Your task to perform on an android device: Search for usb-b on ebay.com, select the first entry, add it to the cart, then select checkout. Image 0: 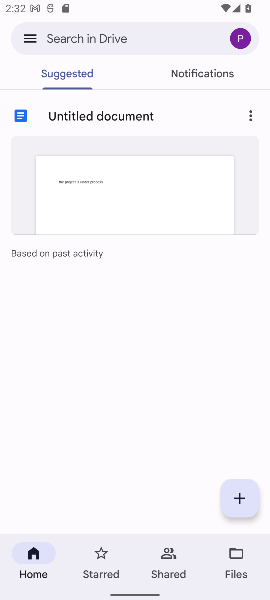
Step 0: press home button
Your task to perform on an android device: Search for usb-b on ebay.com, select the first entry, add it to the cart, then select checkout. Image 1: 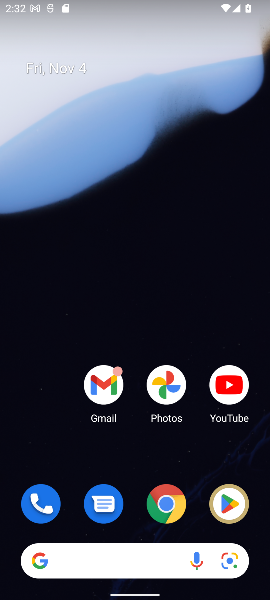
Step 1: click (173, 504)
Your task to perform on an android device: Search for usb-b on ebay.com, select the first entry, add it to the cart, then select checkout. Image 2: 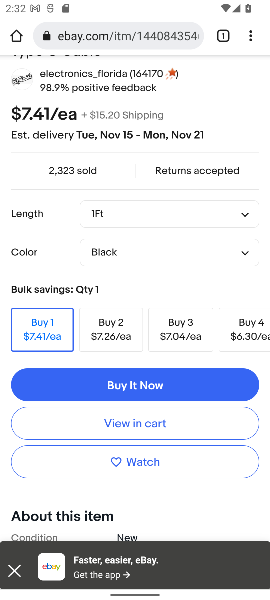
Step 2: drag from (170, 272) to (104, 472)
Your task to perform on an android device: Search for usb-b on ebay.com, select the first entry, add it to the cart, then select checkout. Image 3: 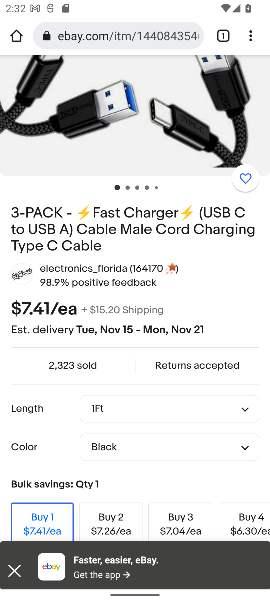
Step 3: drag from (126, 206) to (95, 420)
Your task to perform on an android device: Search for usb-b on ebay.com, select the first entry, add it to the cart, then select checkout. Image 4: 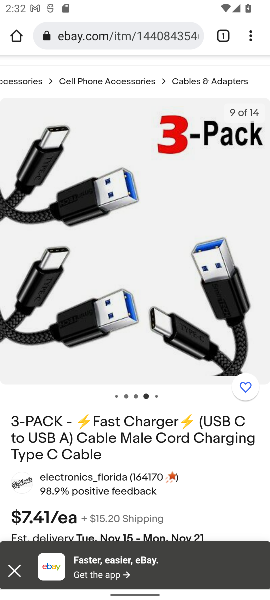
Step 4: drag from (111, 181) to (110, 411)
Your task to perform on an android device: Search for usb-b on ebay.com, select the first entry, add it to the cart, then select checkout. Image 5: 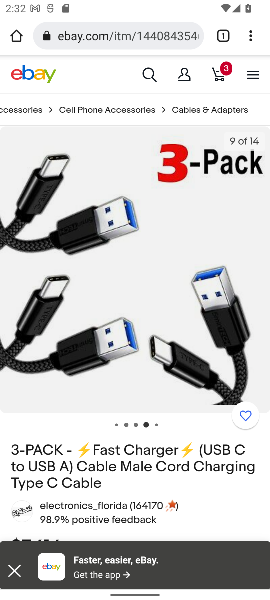
Step 5: click (150, 77)
Your task to perform on an android device: Search for usb-b on ebay.com, select the first entry, add it to the cart, then select checkout. Image 6: 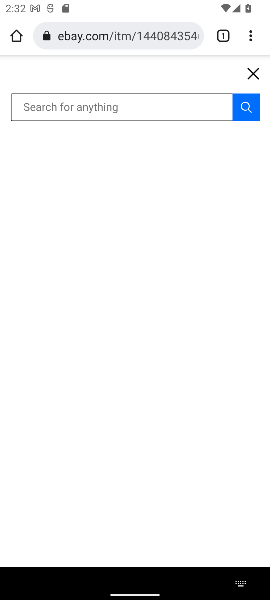
Step 6: type "usb-b"
Your task to perform on an android device: Search for usb-b on ebay.com, select the first entry, add it to the cart, then select checkout. Image 7: 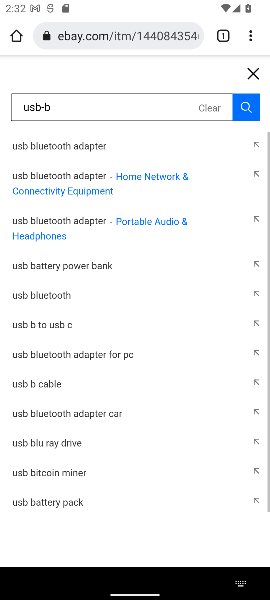
Step 7: click (253, 111)
Your task to perform on an android device: Search for usb-b on ebay.com, select the first entry, add it to the cart, then select checkout. Image 8: 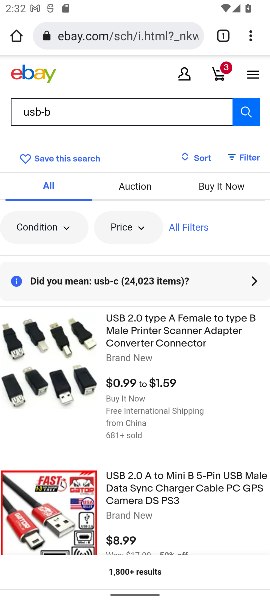
Step 8: click (0, 364)
Your task to perform on an android device: Search for usb-b on ebay.com, select the first entry, add it to the cart, then select checkout. Image 9: 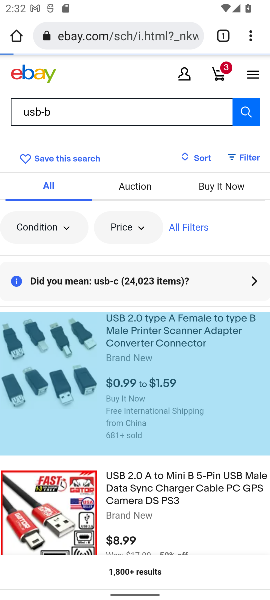
Step 9: click (43, 356)
Your task to perform on an android device: Search for usb-b on ebay.com, select the first entry, add it to the cart, then select checkout. Image 10: 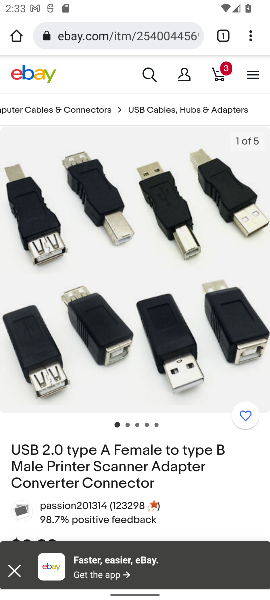
Step 10: drag from (159, 382) to (169, 171)
Your task to perform on an android device: Search for usb-b on ebay.com, select the first entry, add it to the cart, then select checkout. Image 11: 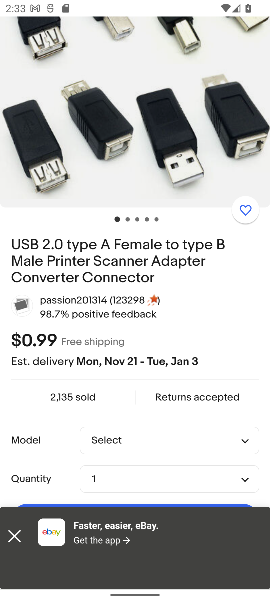
Step 11: drag from (141, 276) to (136, 127)
Your task to perform on an android device: Search for usb-b on ebay.com, select the first entry, add it to the cart, then select checkout. Image 12: 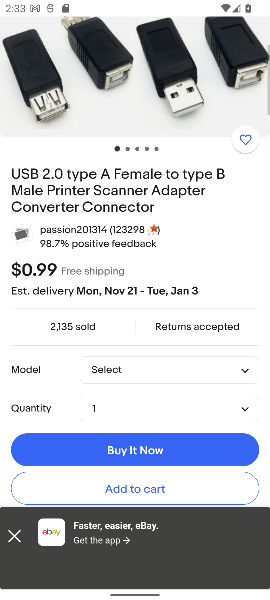
Step 12: drag from (158, 291) to (140, 142)
Your task to perform on an android device: Search for usb-b on ebay.com, select the first entry, add it to the cart, then select checkout. Image 13: 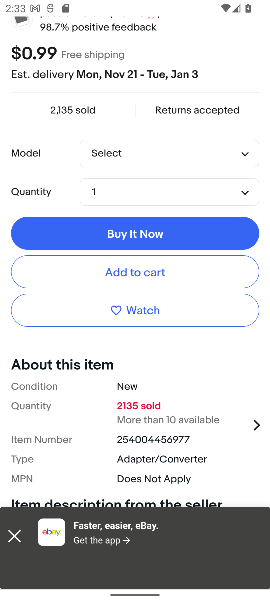
Step 13: click (116, 273)
Your task to perform on an android device: Search for usb-b on ebay.com, select the first entry, add it to the cart, then select checkout. Image 14: 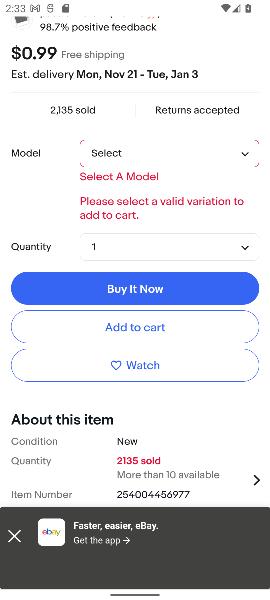
Step 14: click (243, 154)
Your task to perform on an android device: Search for usb-b on ebay.com, select the first entry, add it to the cart, then select checkout. Image 15: 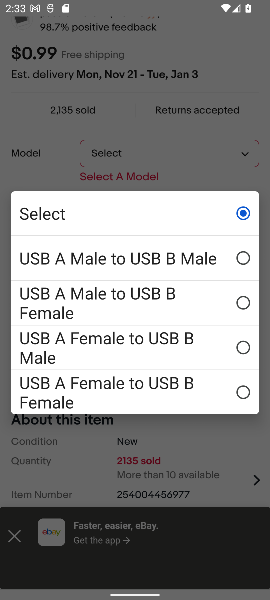
Step 15: click (72, 262)
Your task to perform on an android device: Search for usb-b on ebay.com, select the first entry, add it to the cart, then select checkout. Image 16: 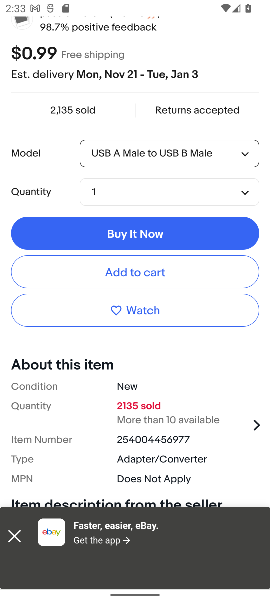
Step 16: click (114, 268)
Your task to perform on an android device: Search for usb-b on ebay.com, select the first entry, add it to the cart, then select checkout. Image 17: 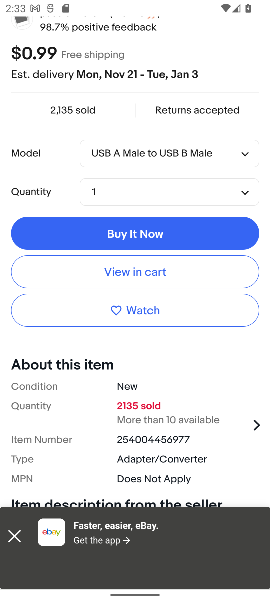
Step 17: drag from (115, 393) to (97, 306)
Your task to perform on an android device: Search for usb-b on ebay.com, select the first entry, add it to the cart, then select checkout. Image 18: 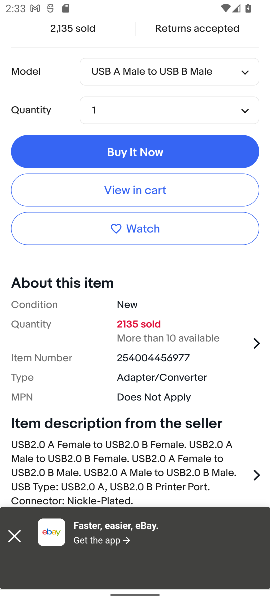
Step 18: click (135, 185)
Your task to perform on an android device: Search for usb-b on ebay.com, select the first entry, add it to the cart, then select checkout. Image 19: 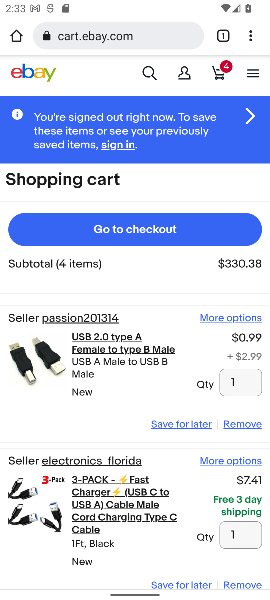
Step 19: click (110, 223)
Your task to perform on an android device: Search for usb-b on ebay.com, select the first entry, add it to the cart, then select checkout. Image 20: 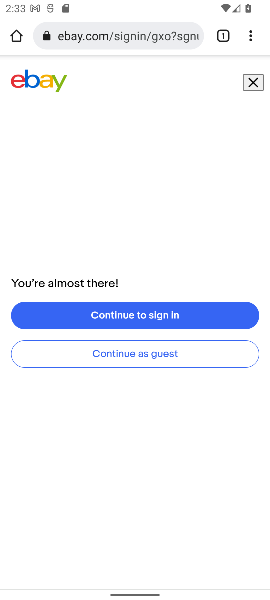
Step 20: task complete